Your task to perform on an android device: toggle notification dots Image 0: 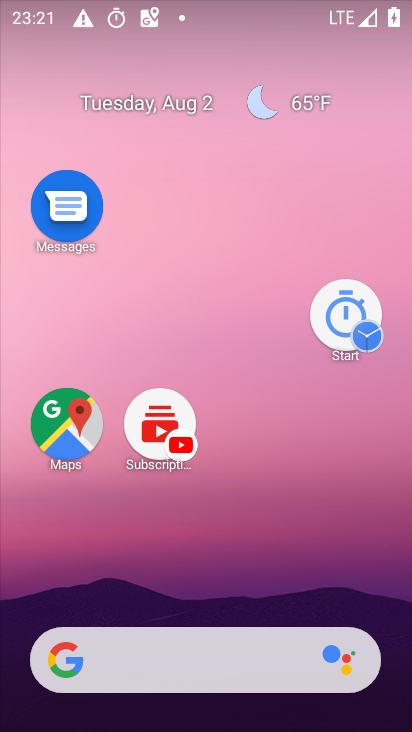
Step 0: drag from (178, 490) to (115, 269)
Your task to perform on an android device: toggle notification dots Image 1: 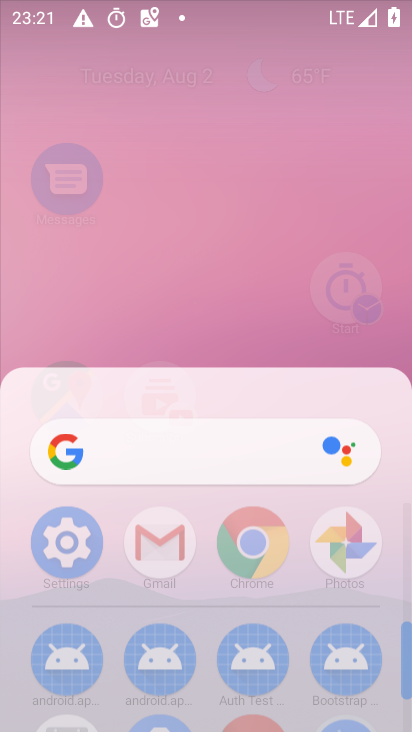
Step 1: click (173, 293)
Your task to perform on an android device: toggle notification dots Image 2: 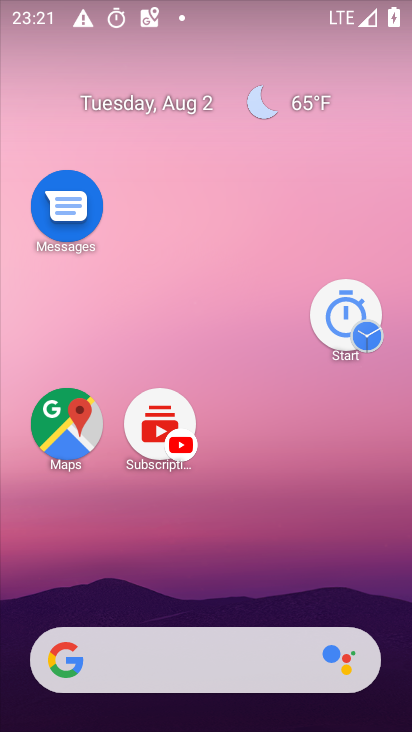
Step 2: drag from (193, 550) to (168, 217)
Your task to perform on an android device: toggle notification dots Image 3: 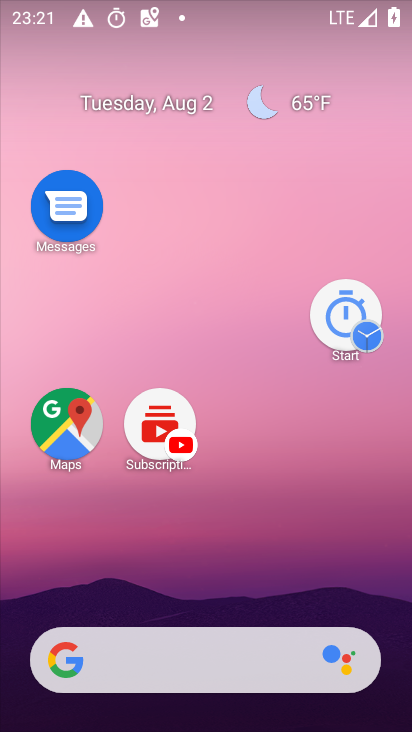
Step 3: drag from (266, 549) to (178, 230)
Your task to perform on an android device: toggle notification dots Image 4: 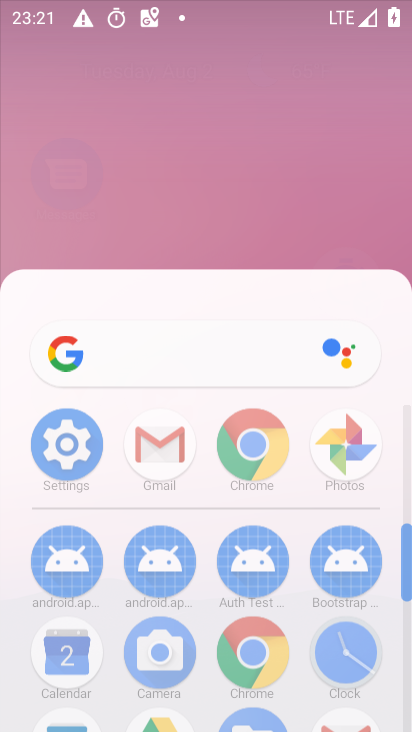
Step 4: click (138, 214)
Your task to perform on an android device: toggle notification dots Image 5: 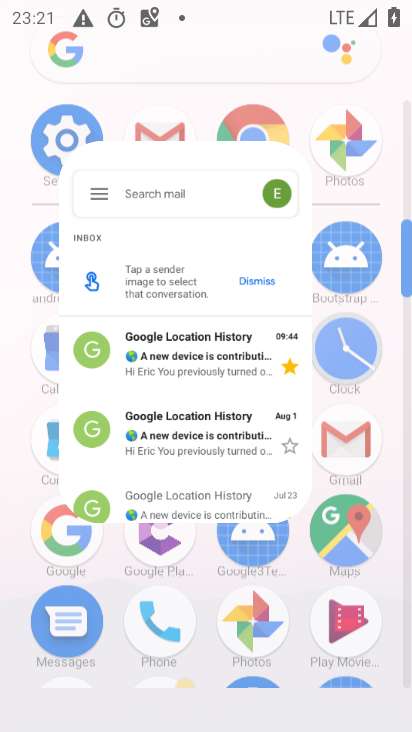
Step 5: drag from (213, 248) to (206, 100)
Your task to perform on an android device: toggle notification dots Image 6: 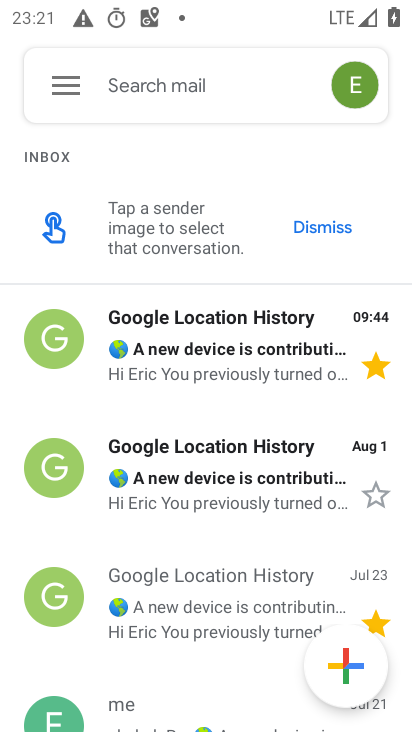
Step 6: press back button
Your task to perform on an android device: toggle notification dots Image 7: 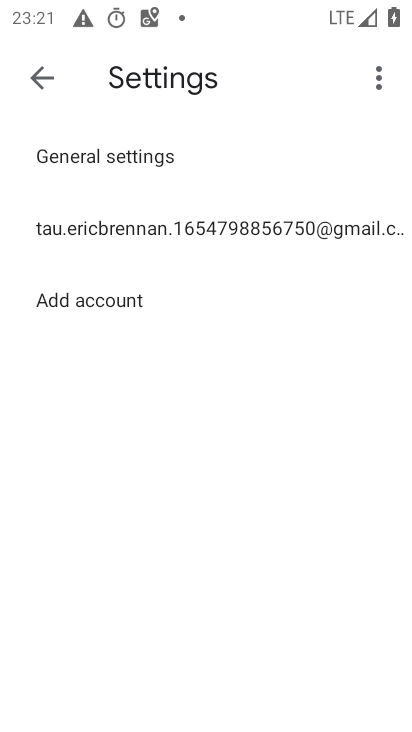
Step 7: click (37, 76)
Your task to perform on an android device: toggle notification dots Image 8: 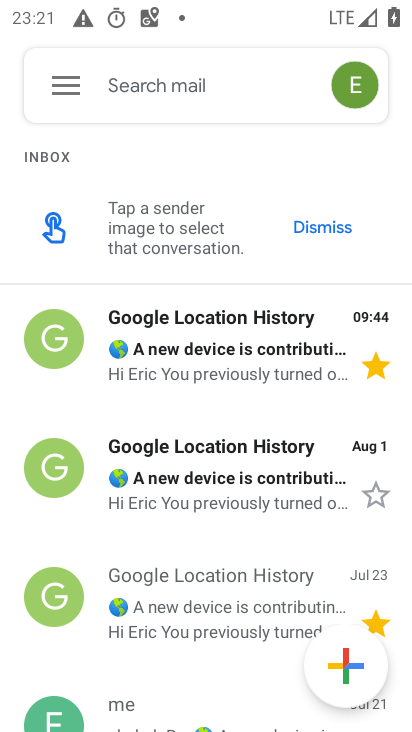
Step 8: press back button
Your task to perform on an android device: toggle notification dots Image 9: 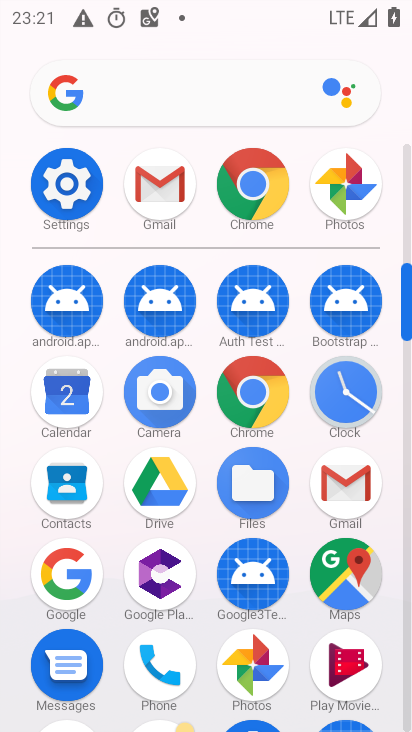
Step 9: click (61, 199)
Your task to perform on an android device: toggle notification dots Image 10: 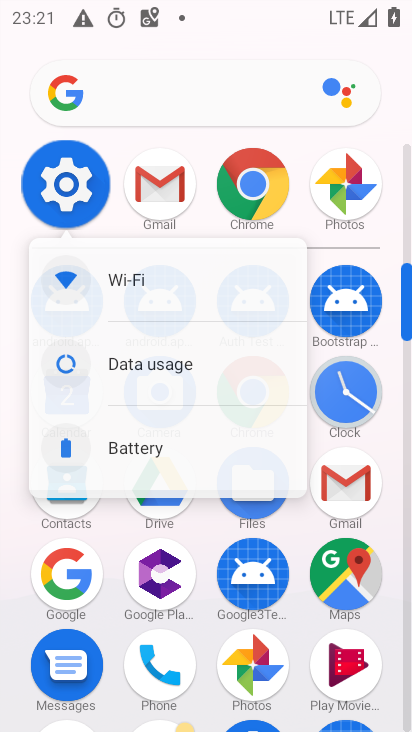
Step 10: click (62, 197)
Your task to perform on an android device: toggle notification dots Image 11: 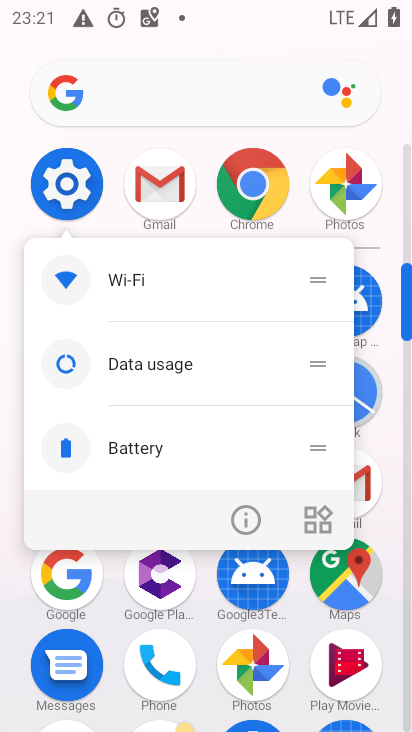
Step 11: click (63, 181)
Your task to perform on an android device: toggle notification dots Image 12: 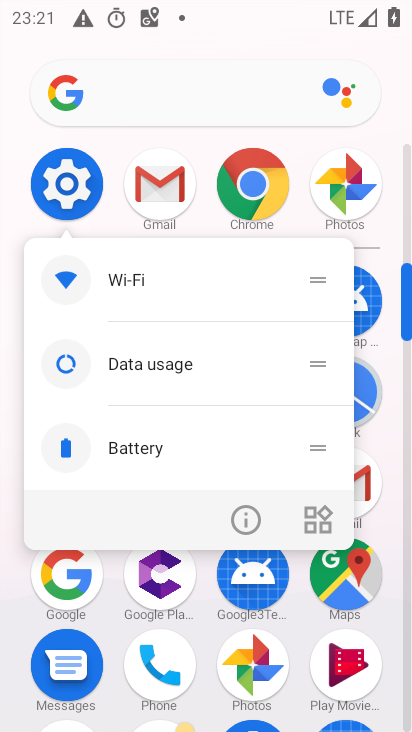
Step 12: click (66, 166)
Your task to perform on an android device: toggle notification dots Image 13: 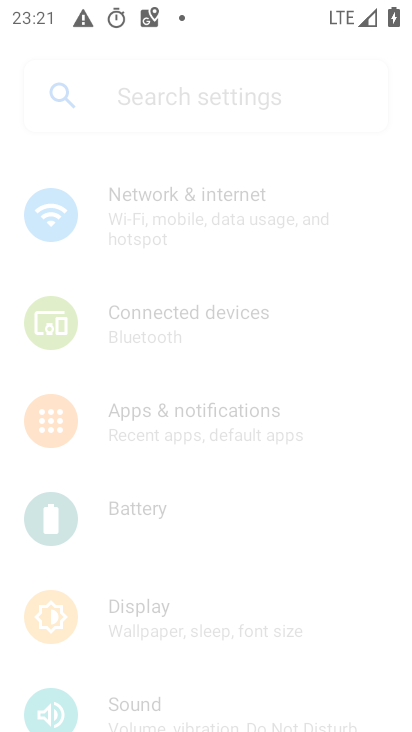
Step 13: click (63, 180)
Your task to perform on an android device: toggle notification dots Image 14: 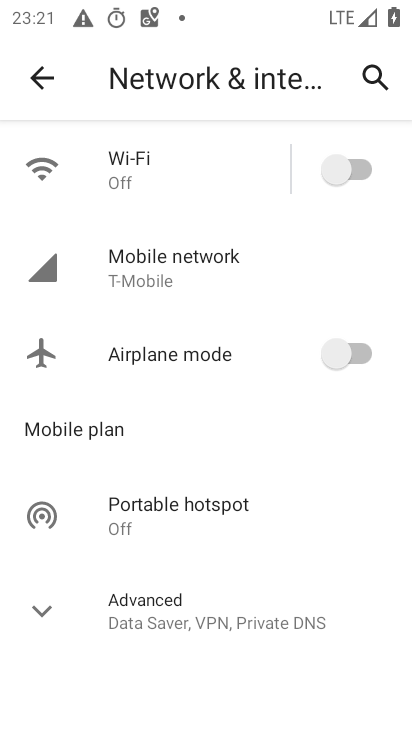
Step 14: click (36, 79)
Your task to perform on an android device: toggle notification dots Image 15: 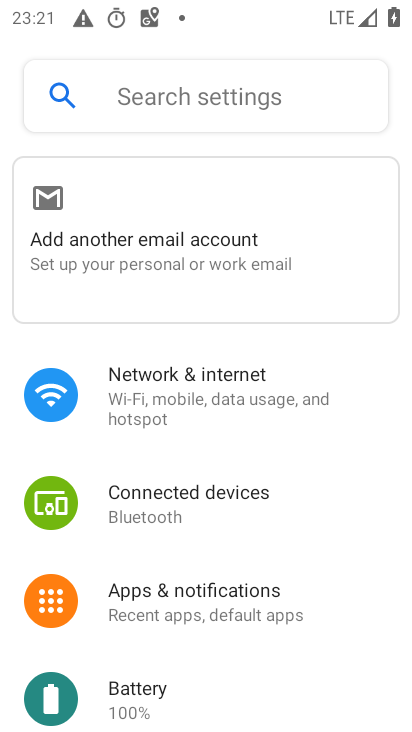
Step 15: click (215, 604)
Your task to perform on an android device: toggle notification dots Image 16: 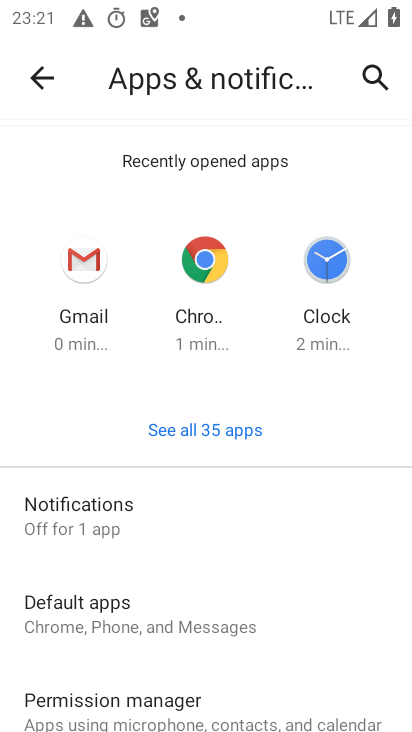
Step 16: drag from (213, 636) to (173, 302)
Your task to perform on an android device: toggle notification dots Image 17: 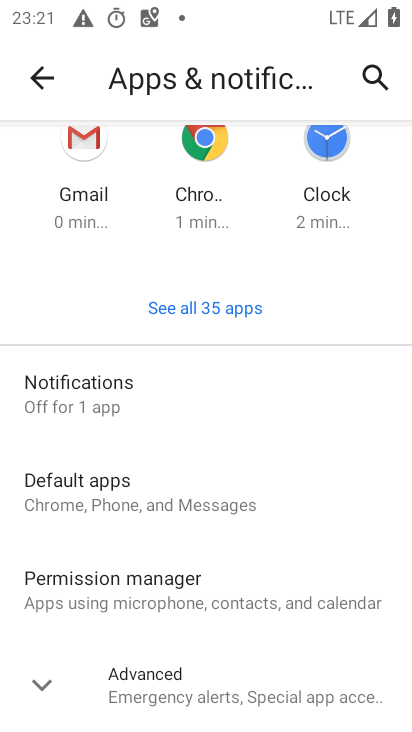
Step 17: click (42, 399)
Your task to perform on an android device: toggle notification dots Image 18: 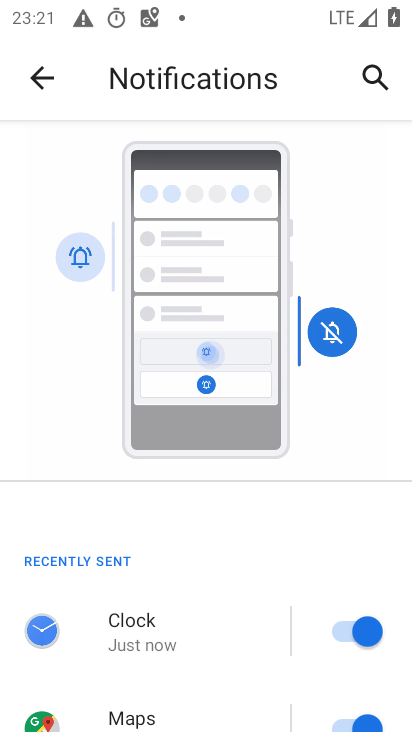
Step 18: click (126, 346)
Your task to perform on an android device: toggle notification dots Image 19: 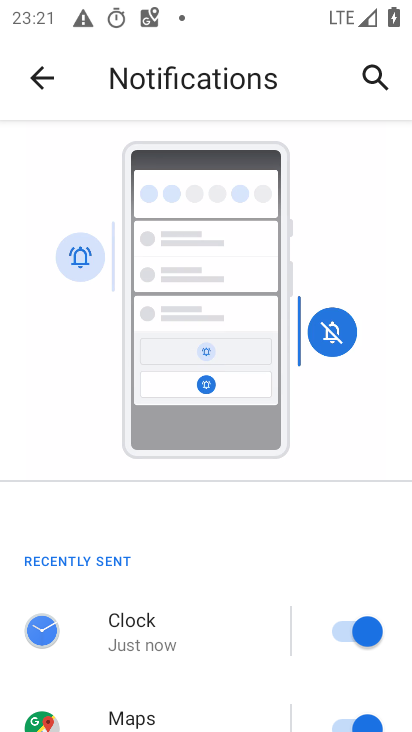
Step 19: drag from (171, 551) to (126, 268)
Your task to perform on an android device: toggle notification dots Image 20: 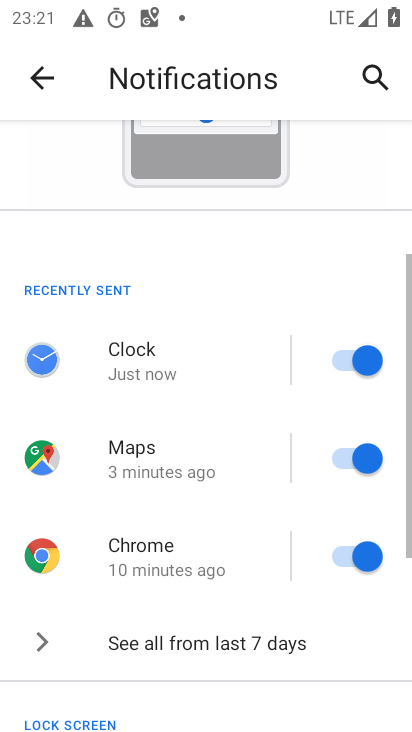
Step 20: click (198, 293)
Your task to perform on an android device: toggle notification dots Image 21: 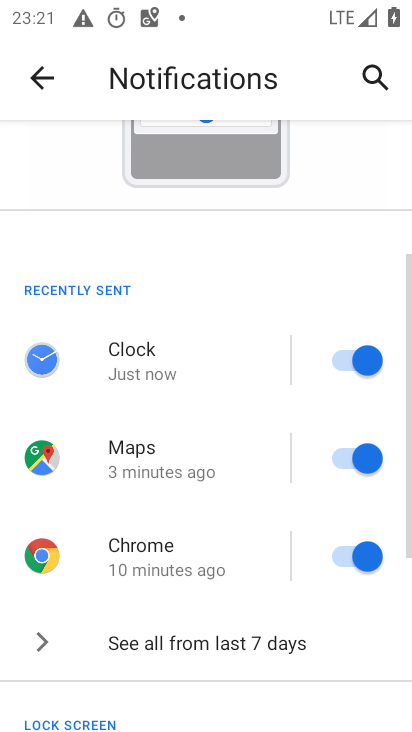
Step 21: drag from (223, 509) to (220, 368)
Your task to perform on an android device: toggle notification dots Image 22: 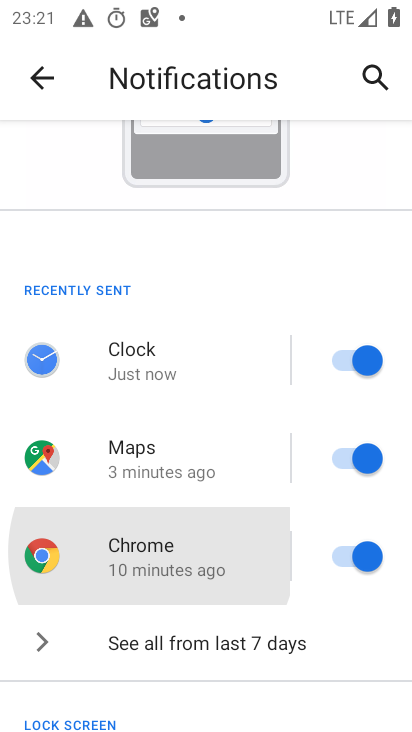
Step 22: drag from (212, 546) to (155, 268)
Your task to perform on an android device: toggle notification dots Image 23: 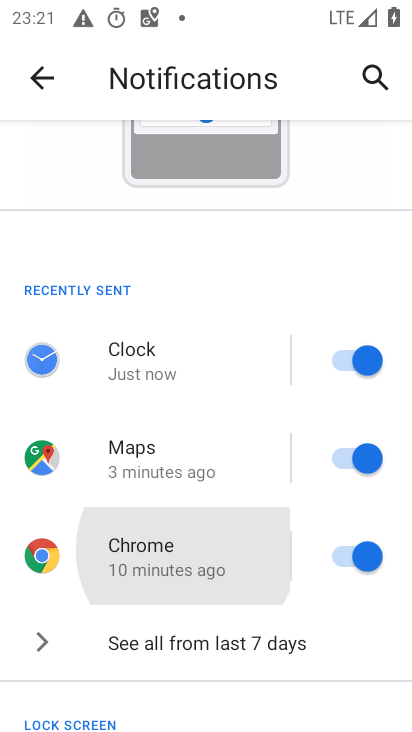
Step 23: drag from (251, 552) to (226, 209)
Your task to perform on an android device: toggle notification dots Image 24: 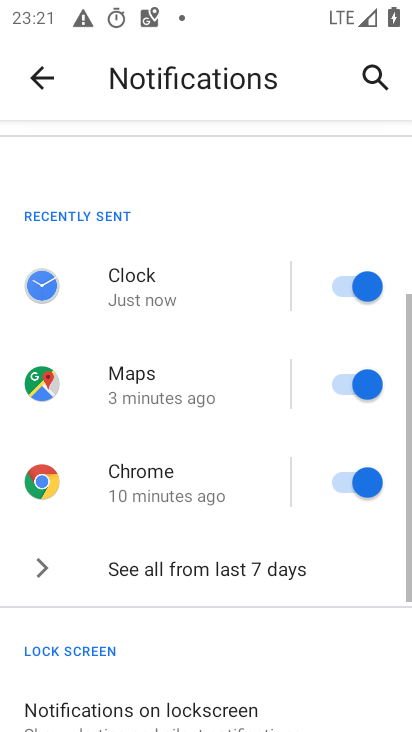
Step 24: drag from (174, 467) to (127, 250)
Your task to perform on an android device: toggle notification dots Image 25: 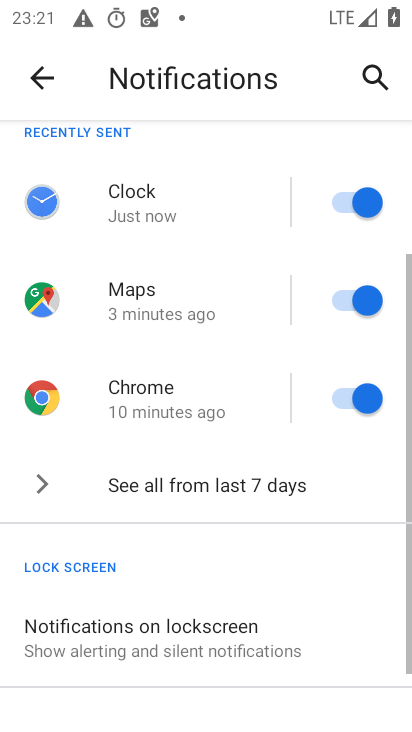
Step 25: drag from (151, 355) to (143, 295)
Your task to perform on an android device: toggle notification dots Image 26: 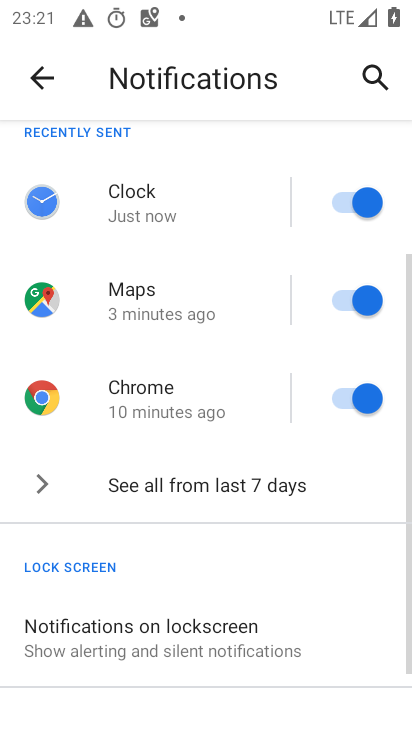
Step 26: drag from (237, 560) to (223, 302)
Your task to perform on an android device: toggle notification dots Image 27: 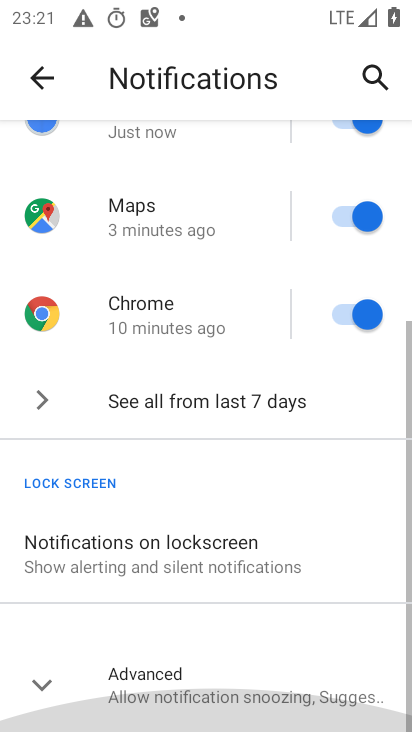
Step 27: drag from (306, 550) to (293, 378)
Your task to perform on an android device: toggle notification dots Image 28: 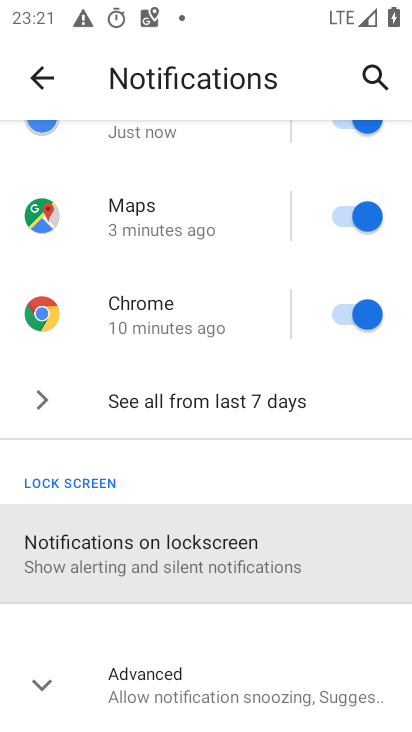
Step 28: drag from (246, 547) to (169, 281)
Your task to perform on an android device: toggle notification dots Image 29: 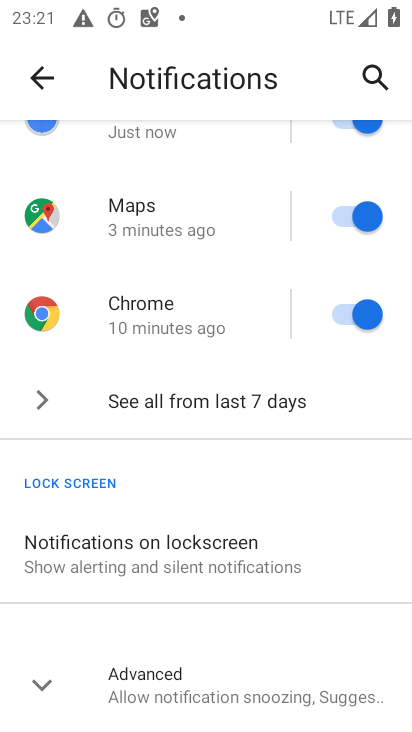
Step 29: click (147, 689)
Your task to perform on an android device: toggle notification dots Image 30: 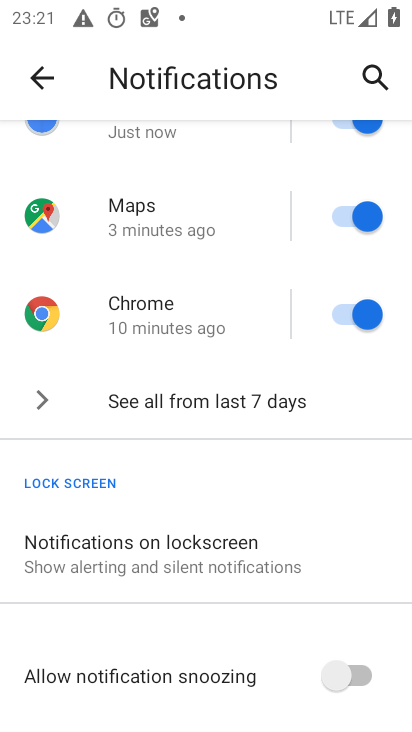
Step 30: drag from (164, 641) to (137, 425)
Your task to perform on an android device: toggle notification dots Image 31: 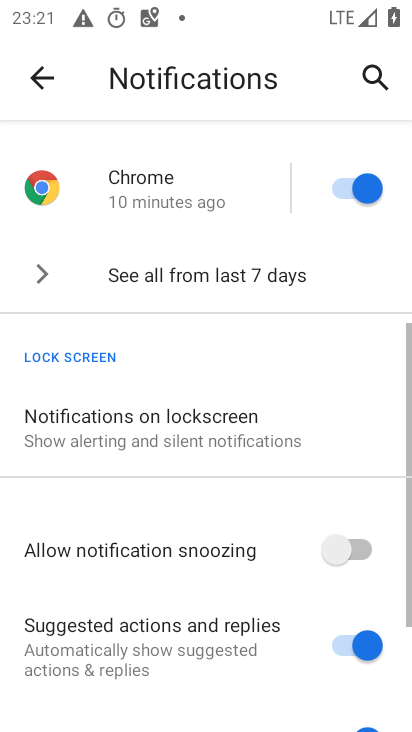
Step 31: drag from (164, 608) to (164, 376)
Your task to perform on an android device: toggle notification dots Image 32: 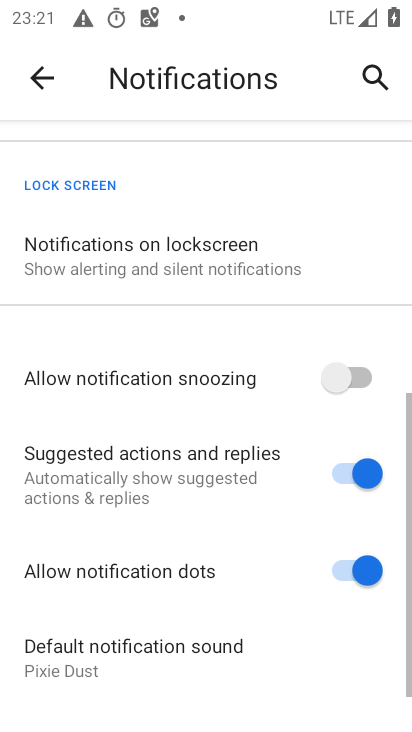
Step 32: drag from (182, 608) to (147, 471)
Your task to perform on an android device: toggle notification dots Image 33: 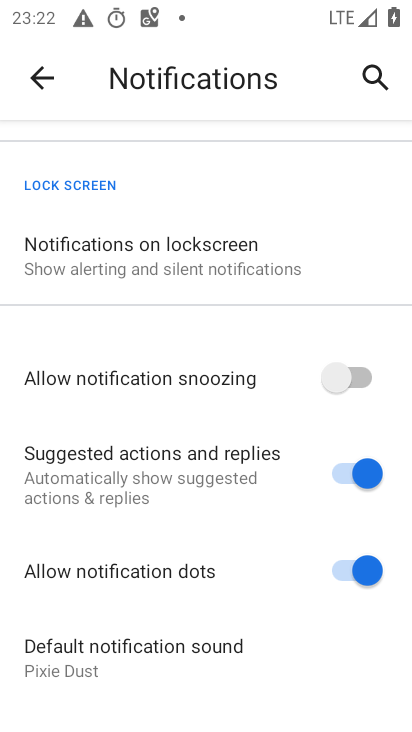
Step 33: click (359, 569)
Your task to perform on an android device: toggle notification dots Image 34: 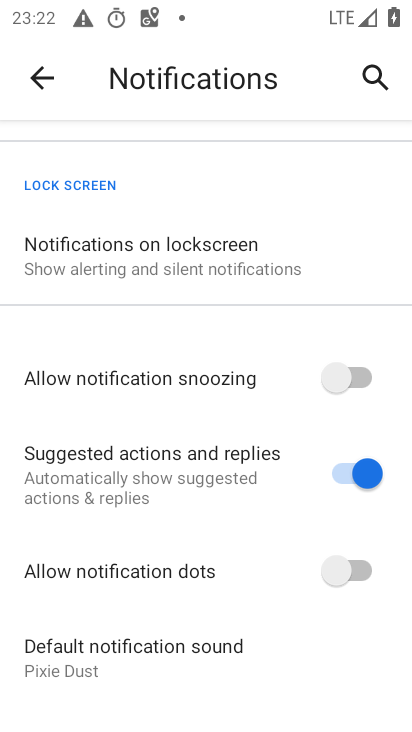
Step 34: task complete